Your task to perform on an android device: turn on improve location accuracy Image 0: 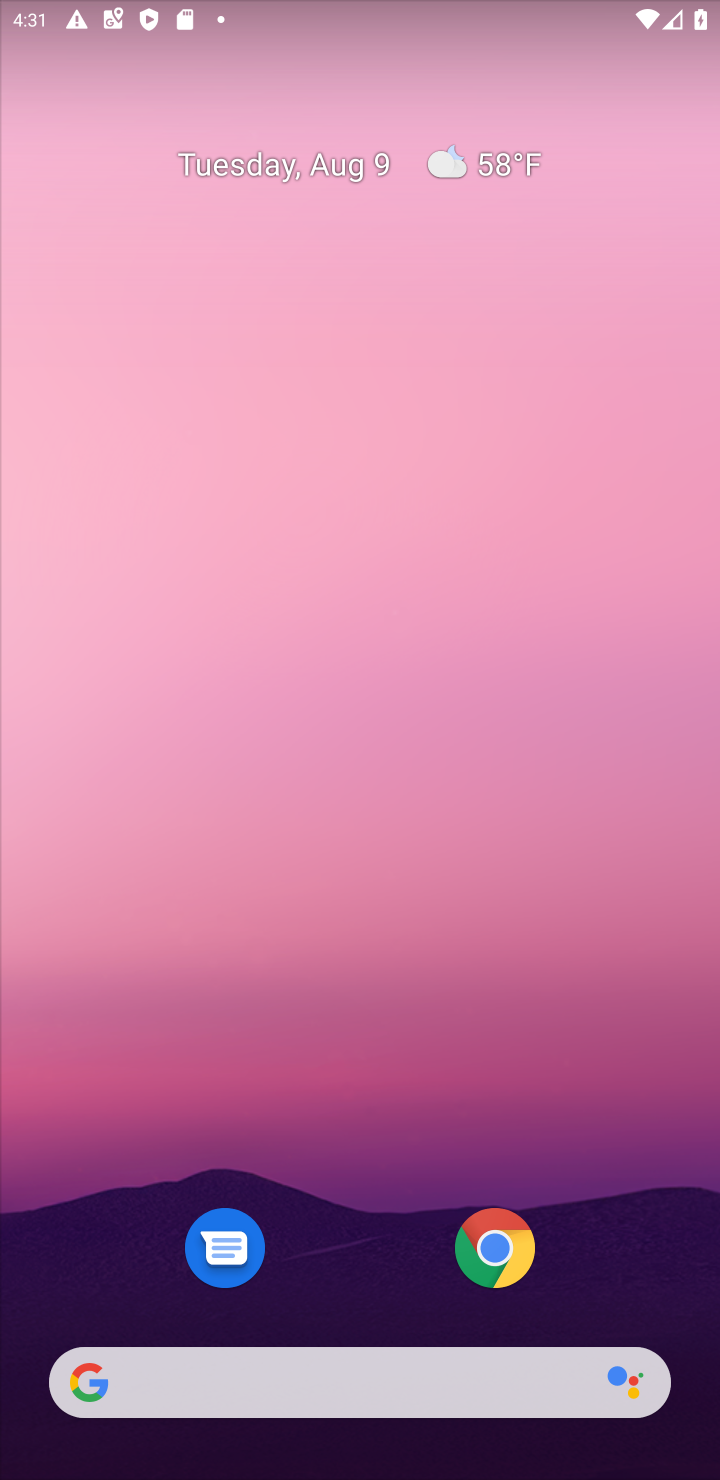
Step 0: drag from (387, 1280) to (171, 3)
Your task to perform on an android device: turn on improve location accuracy Image 1: 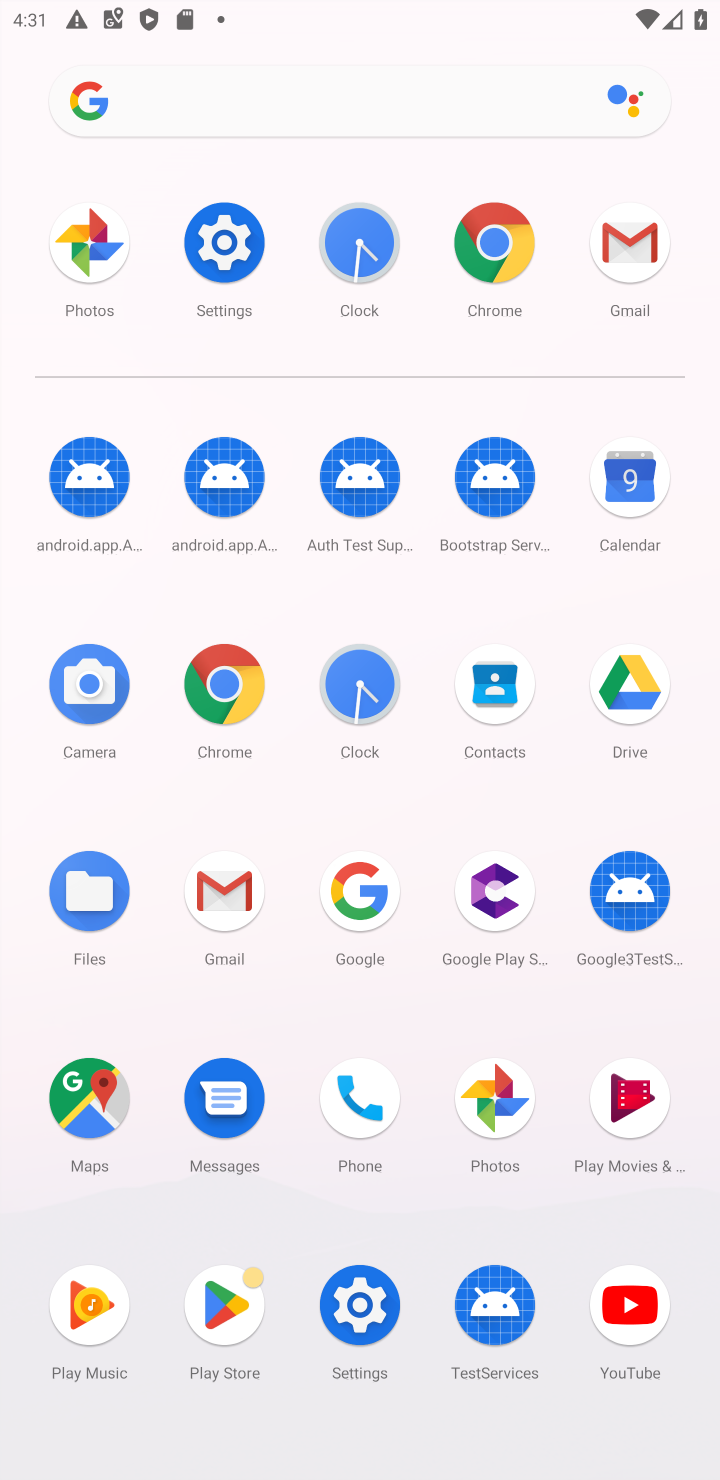
Step 1: click (361, 1306)
Your task to perform on an android device: turn on improve location accuracy Image 2: 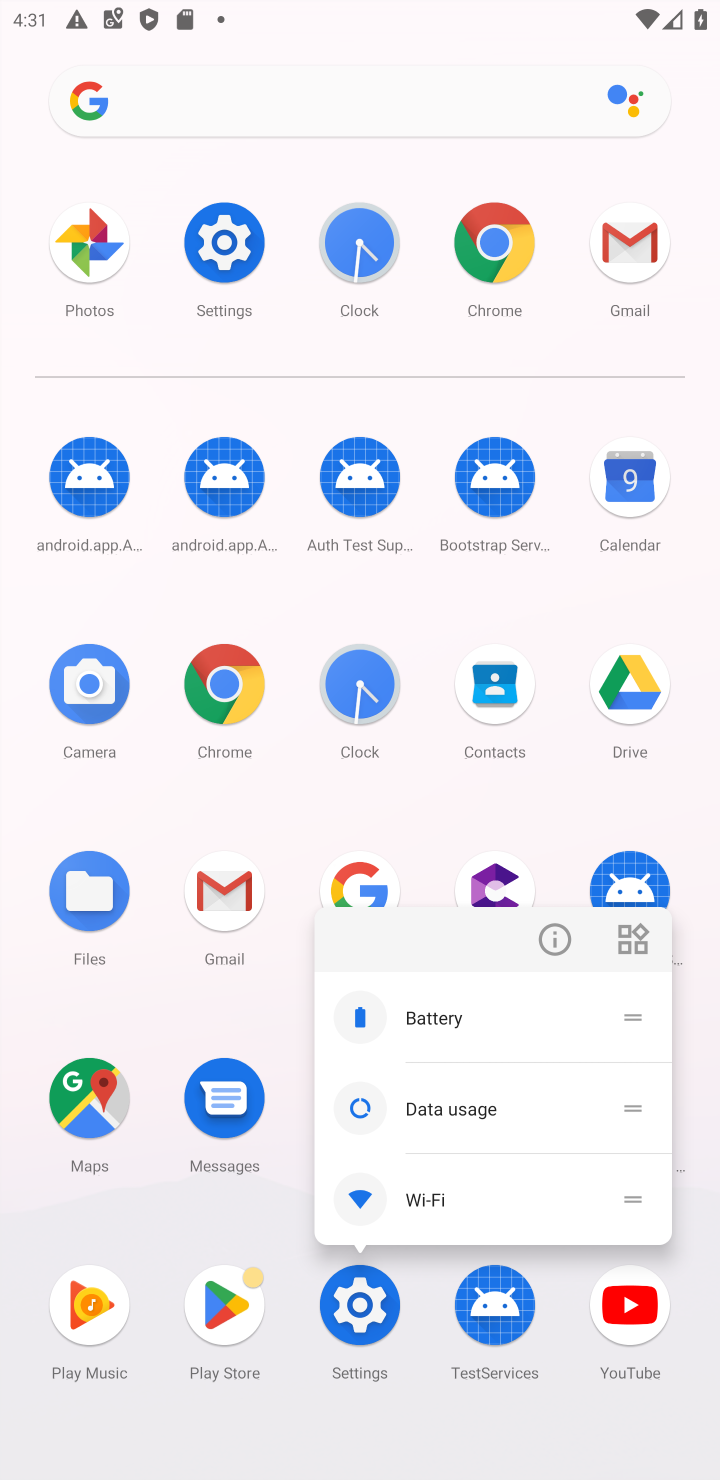
Step 2: click (368, 1297)
Your task to perform on an android device: turn on improve location accuracy Image 3: 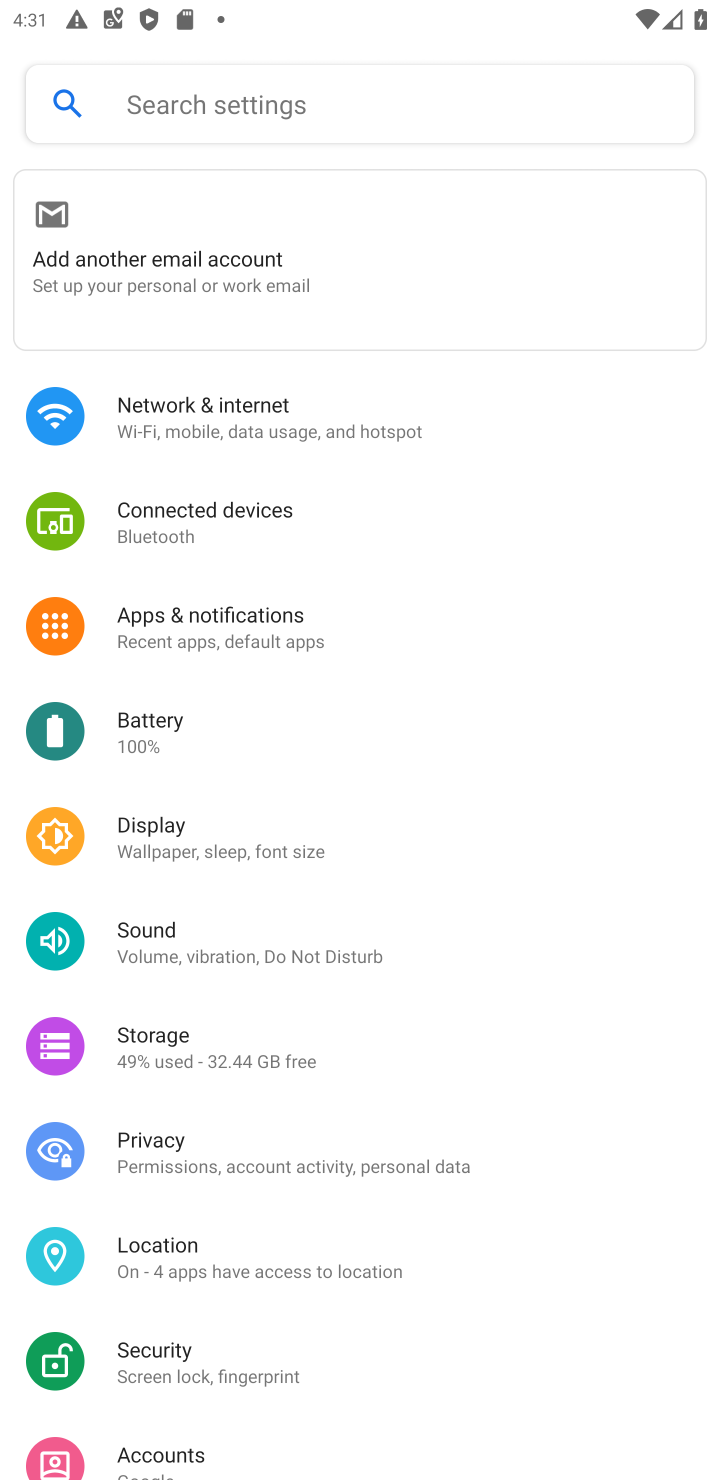
Step 3: click (126, 1244)
Your task to perform on an android device: turn on improve location accuracy Image 4: 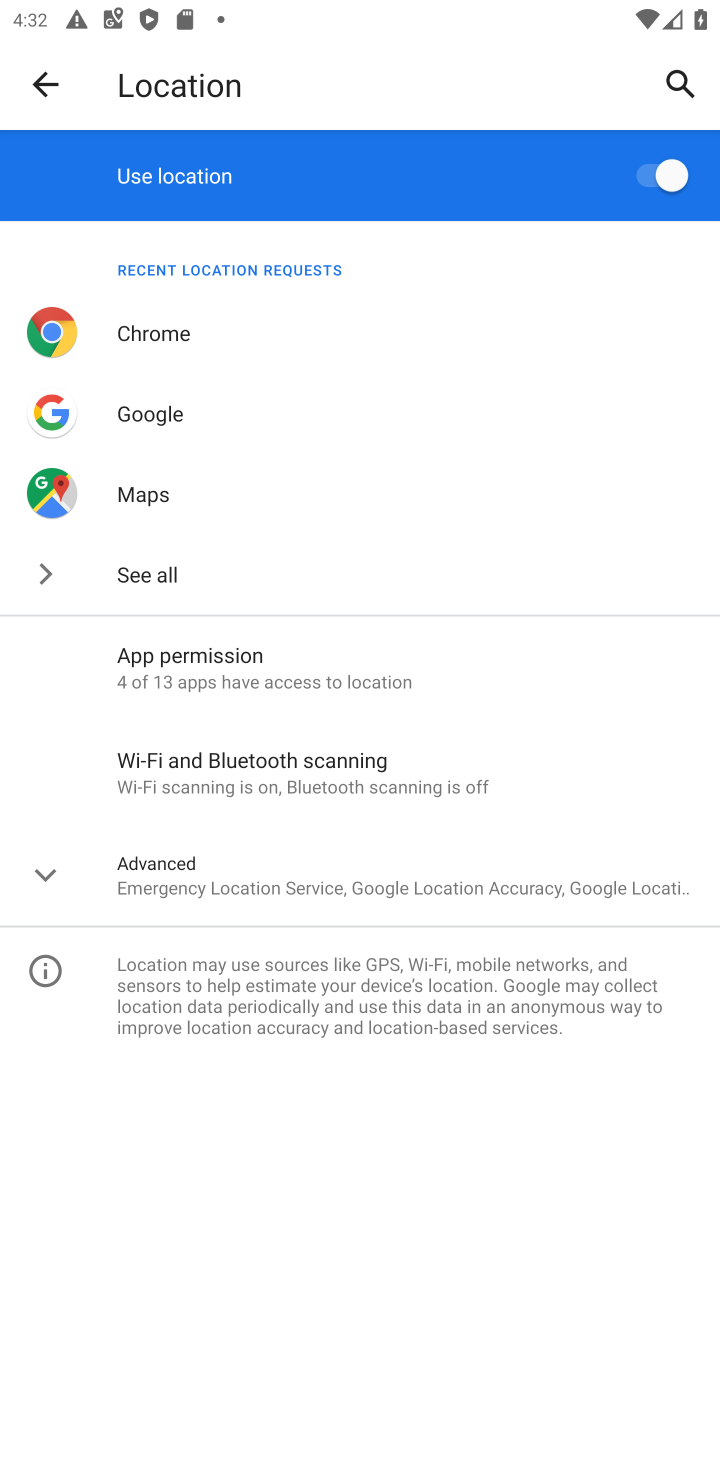
Step 4: click (391, 875)
Your task to perform on an android device: turn on improve location accuracy Image 5: 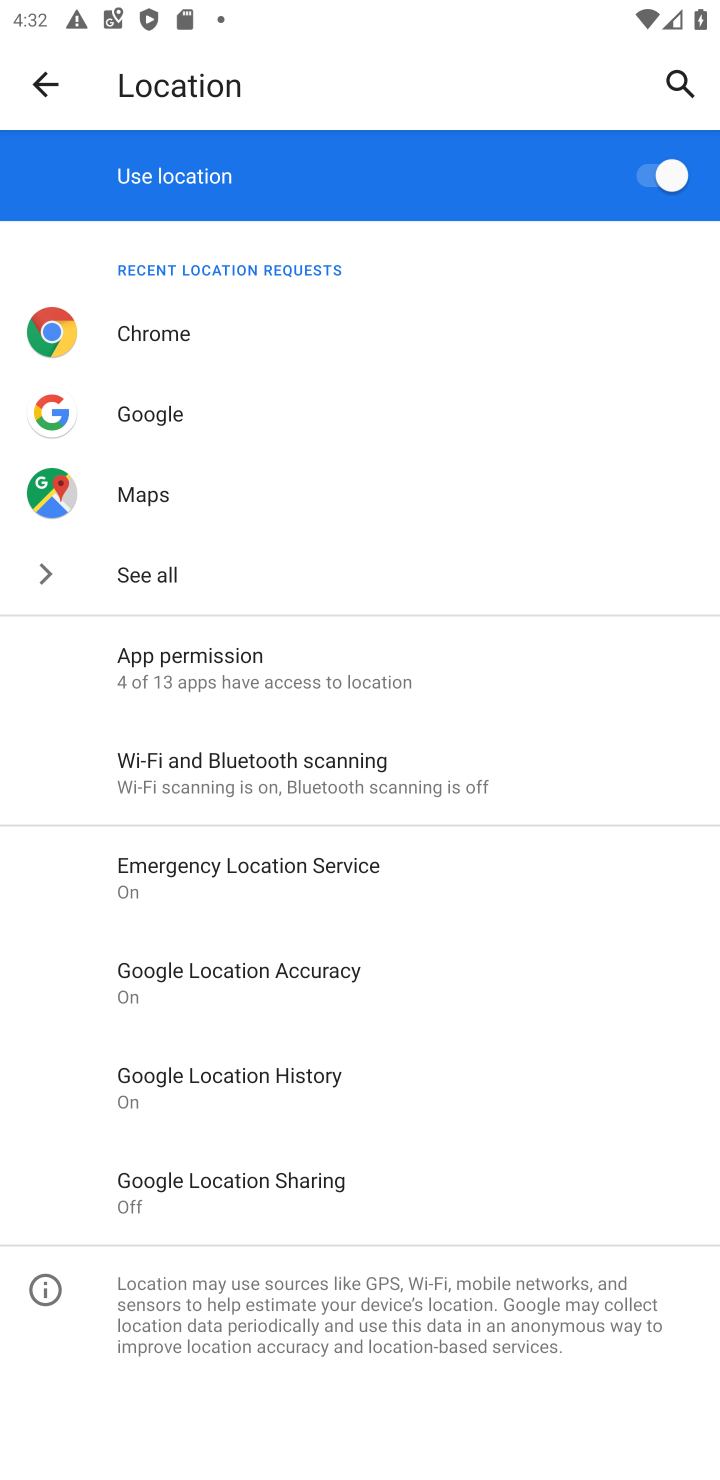
Step 5: click (298, 963)
Your task to perform on an android device: turn on improve location accuracy Image 6: 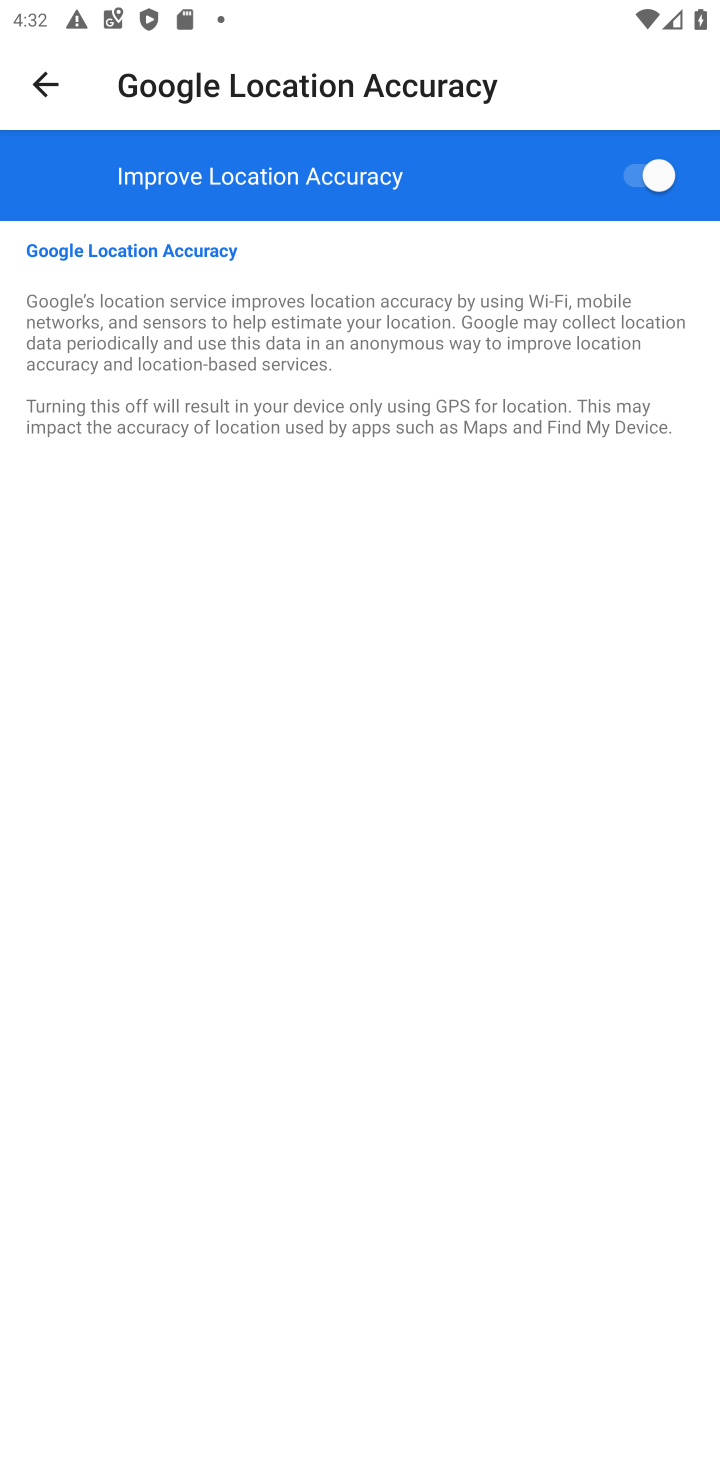
Step 6: task complete